Your task to perform on an android device: Open my contact list Image 0: 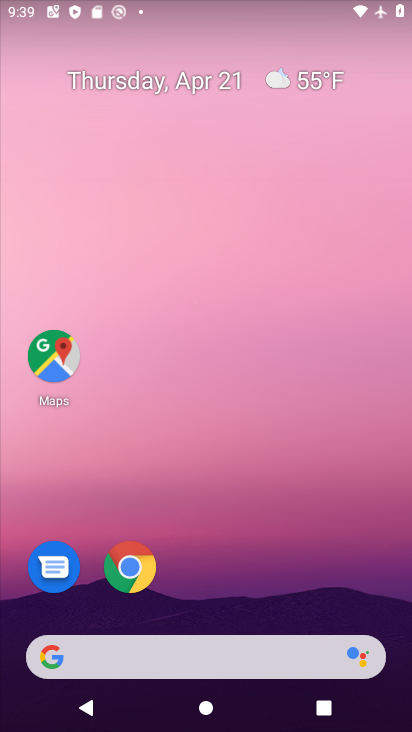
Step 0: drag from (389, 607) to (325, 87)
Your task to perform on an android device: Open my contact list Image 1: 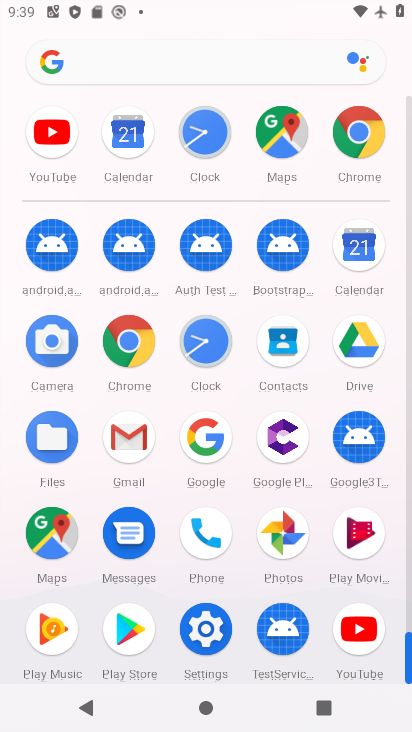
Step 1: click (285, 342)
Your task to perform on an android device: Open my contact list Image 2: 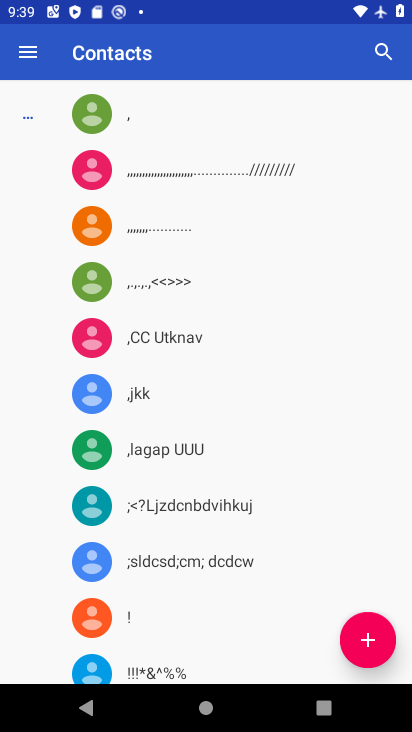
Step 2: task complete